Your task to perform on an android device: open device folders in google photos Image 0: 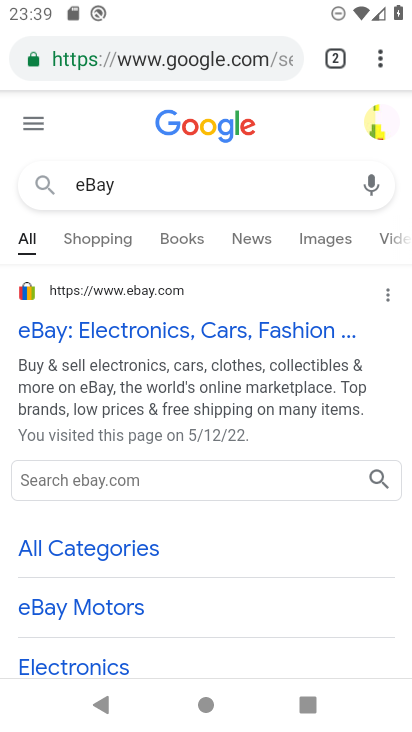
Step 0: press home button
Your task to perform on an android device: open device folders in google photos Image 1: 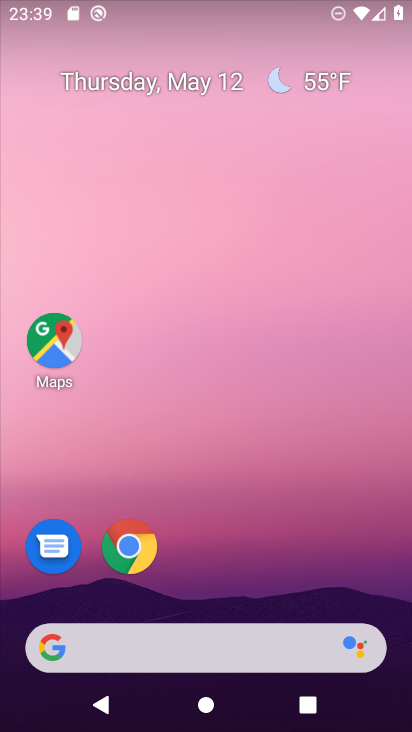
Step 1: drag from (163, 596) to (210, 192)
Your task to perform on an android device: open device folders in google photos Image 2: 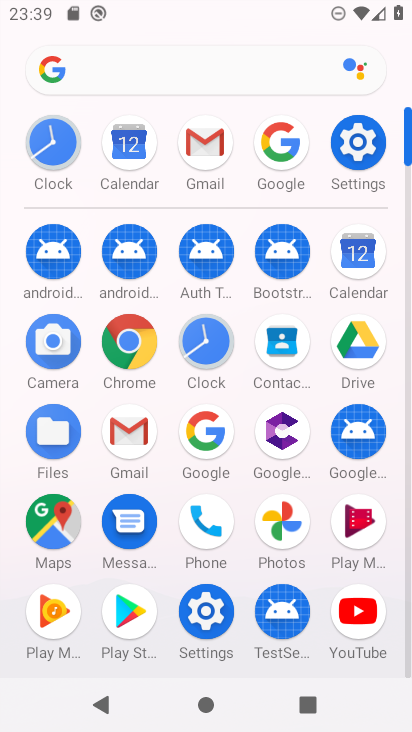
Step 2: click (285, 523)
Your task to perform on an android device: open device folders in google photos Image 3: 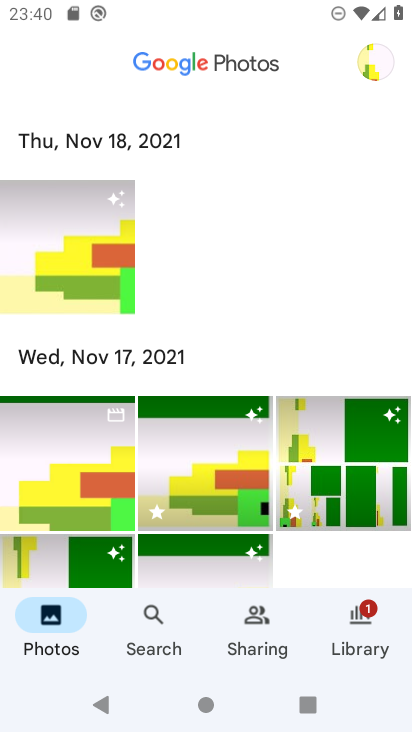
Step 3: click (357, 637)
Your task to perform on an android device: open device folders in google photos Image 4: 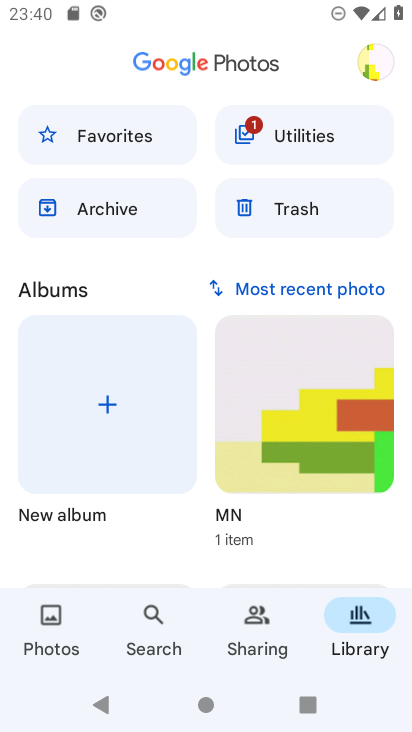
Step 4: click (145, 636)
Your task to perform on an android device: open device folders in google photos Image 5: 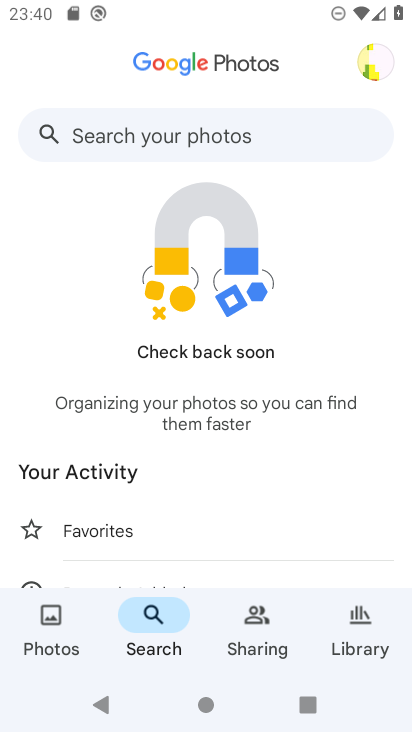
Step 5: click (118, 135)
Your task to perform on an android device: open device folders in google photos Image 6: 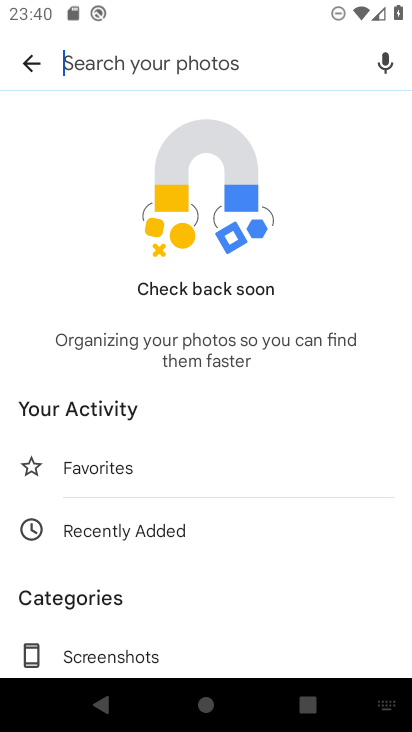
Step 6: type "device"
Your task to perform on an android device: open device folders in google photos Image 7: 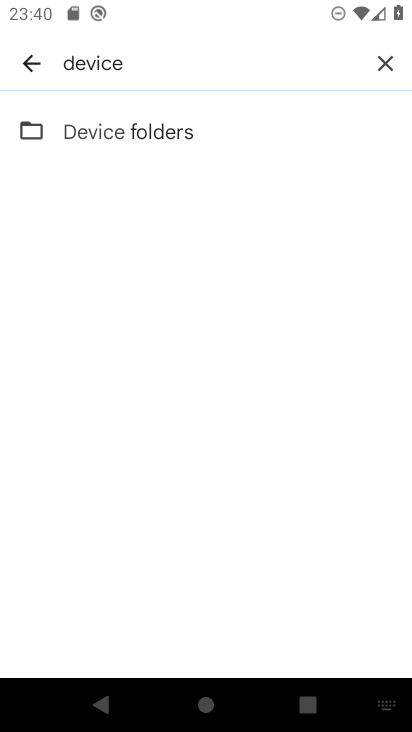
Step 7: click (167, 140)
Your task to perform on an android device: open device folders in google photos Image 8: 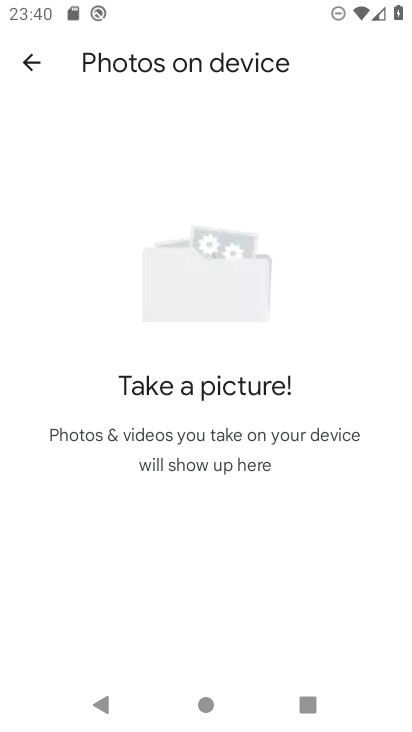
Step 8: task complete